Your task to perform on an android device: find snoozed emails in the gmail app Image 0: 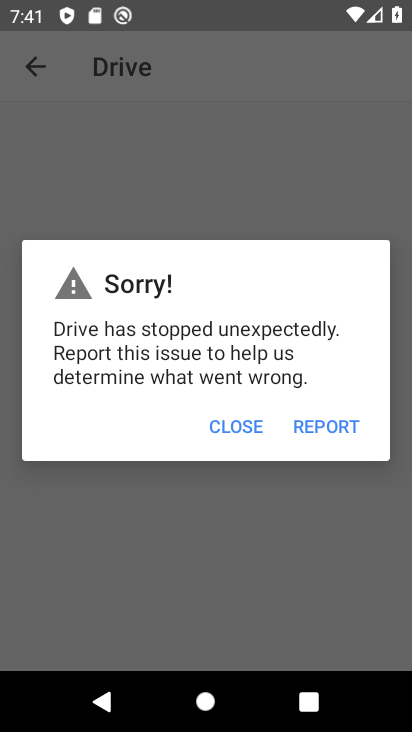
Step 0: press home button
Your task to perform on an android device: find snoozed emails in the gmail app Image 1: 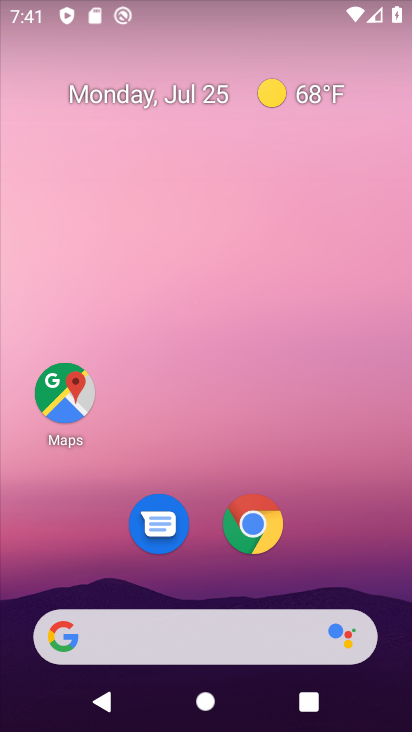
Step 1: drag from (321, 546) to (278, 59)
Your task to perform on an android device: find snoozed emails in the gmail app Image 2: 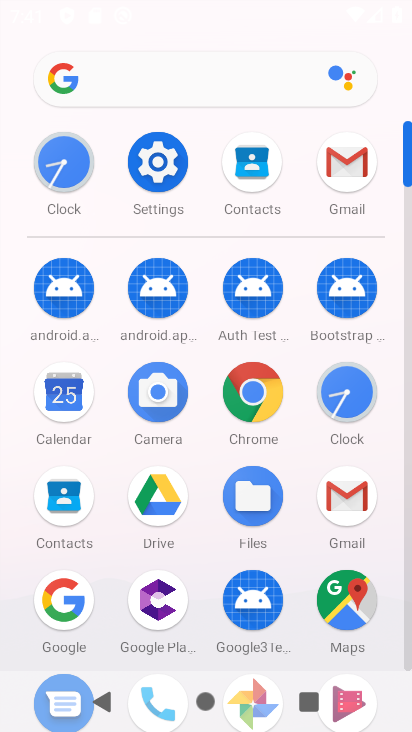
Step 2: click (342, 169)
Your task to perform on an android device: find snoozed emails in the gmail app Image 3: 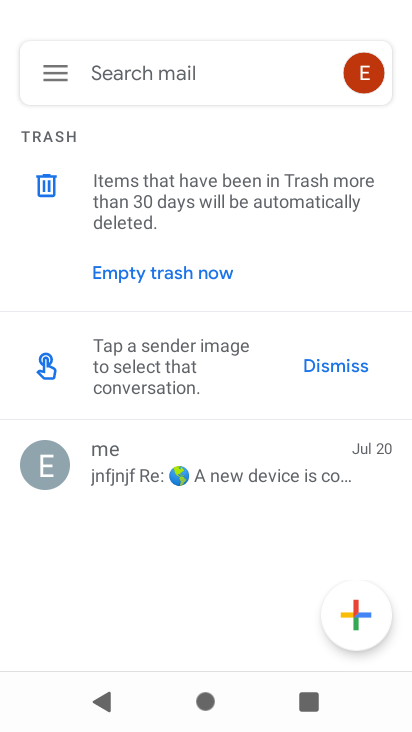
Step 3: click (61, 70)
Your task to perform on an android device: find snoozed emails in the gmail app Image 4: 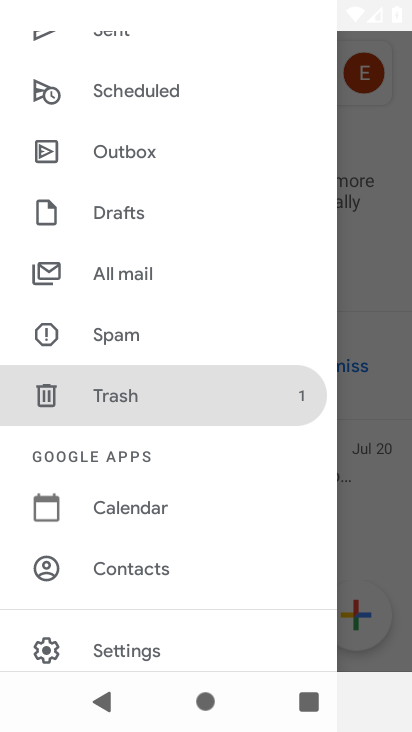
Step 4: drag from (196, 135) to (199, 621)
Your task to perform on an android device: find snoozed emails in the gmail app Image 5: 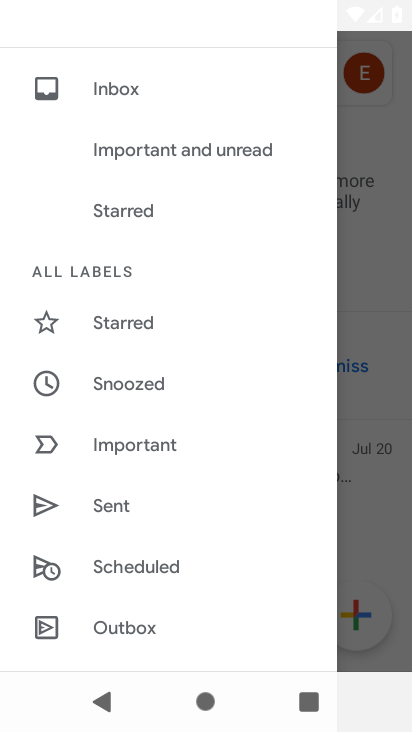
Step 5: click (151, 381)
Your task to perform on an android device: find snoozed emails in the gmail app Image 6: 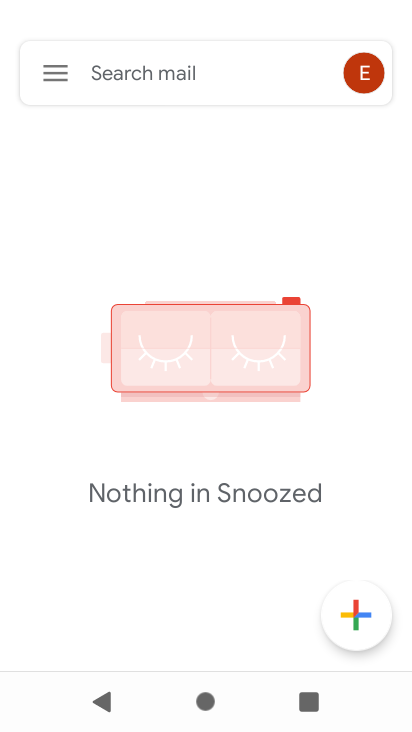
Step 6: task complete